Your task to perform on an android device: turn pop-ups on in chrome Image 0: 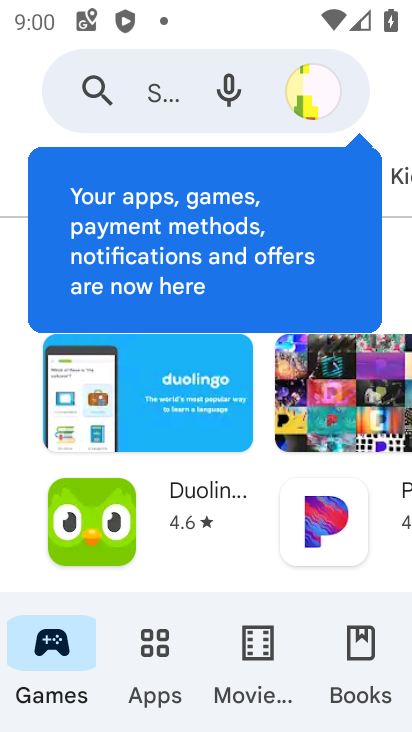
Step 0: press home button
Your task to perform on an android device: turn pop-ups on in chrome Image 1: 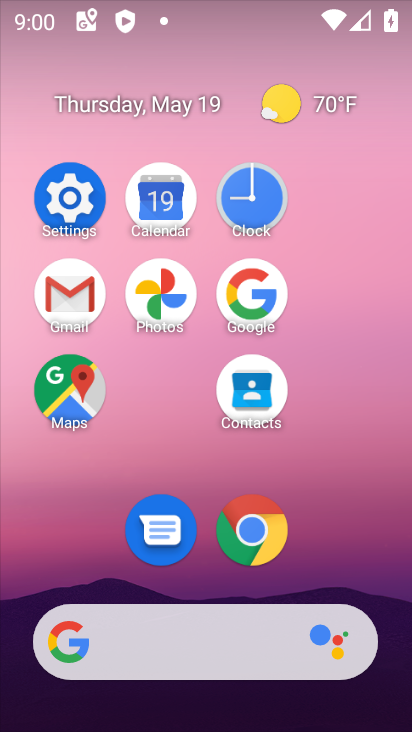
Step 1: click (271, 534)
Your task to perform on an android device: turn pop-ups on in chrome Image 2: 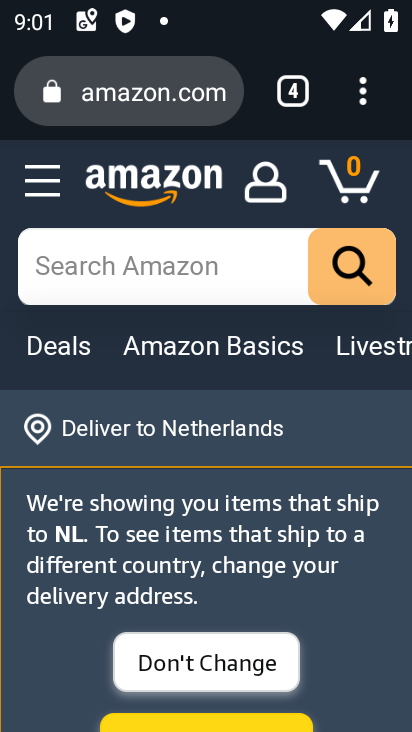
Step 2: click (374, 85)
Your task to perform on an android device: turn pop-ups on in chrome Image 3: 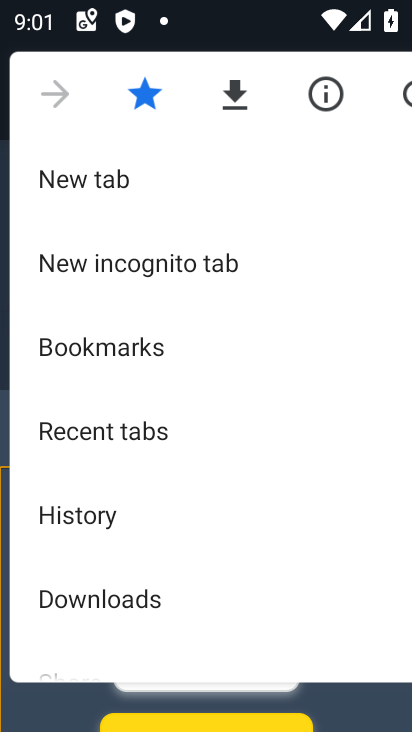
Step 3: drag from (268, 500) to (279, 149)
Your task to perform on an android device: turn pop-ups on in chrome Image 4: 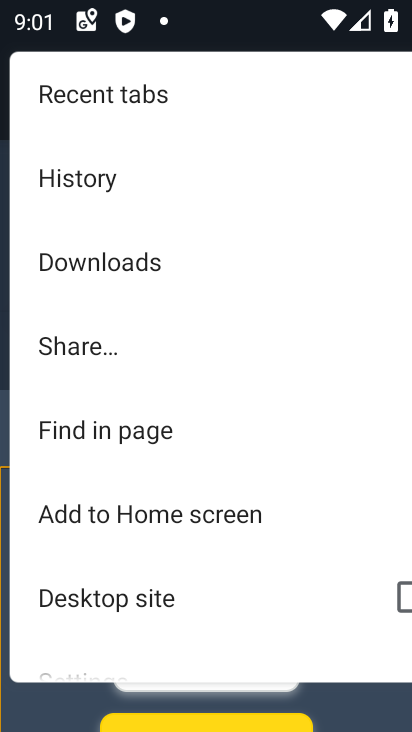
Step 4: drag from (222, 503) to (234, 198)
Your task to perform on an android device: turn pop-ups on in chrome Image 5: 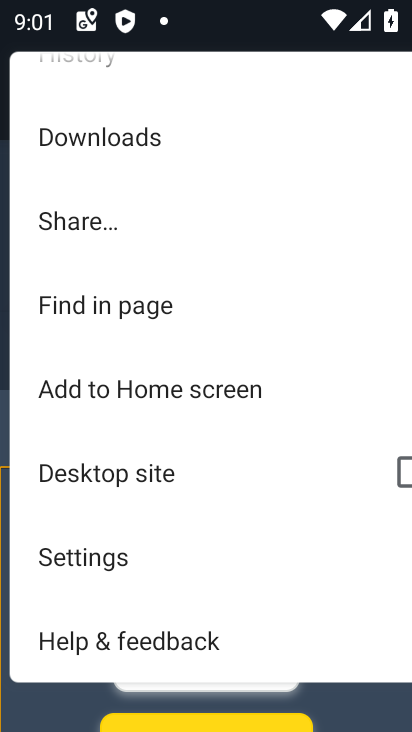
Step 5: click (152, 551)
Your task to perform on an android device: turn pop-ups on in chrome Image 6: 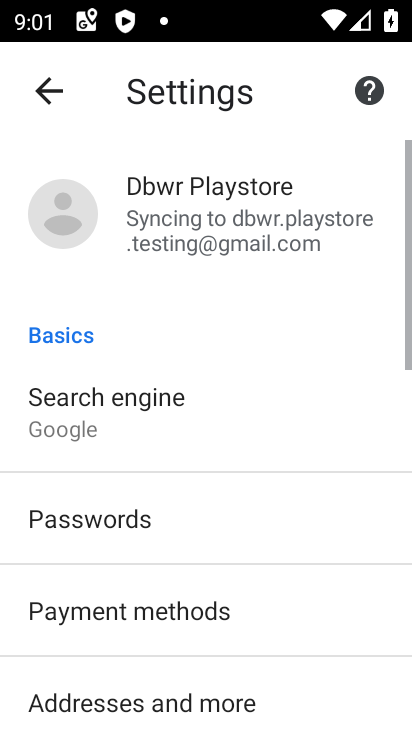
Step 6: drag from (215, 516) to (285, 196)
Your task to perform on an android device: turn pop-ups on in chrome Image 7: 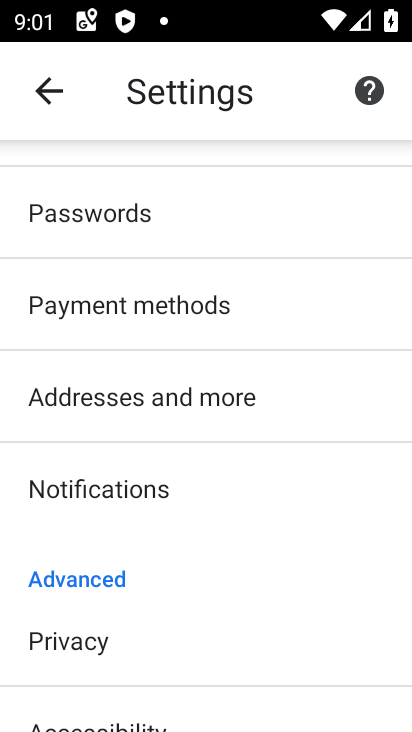
Step 7: drag from (275, 576) to (275, 247)
Your task to perform on an android device: turn pop-ups on in chrome Image 8: 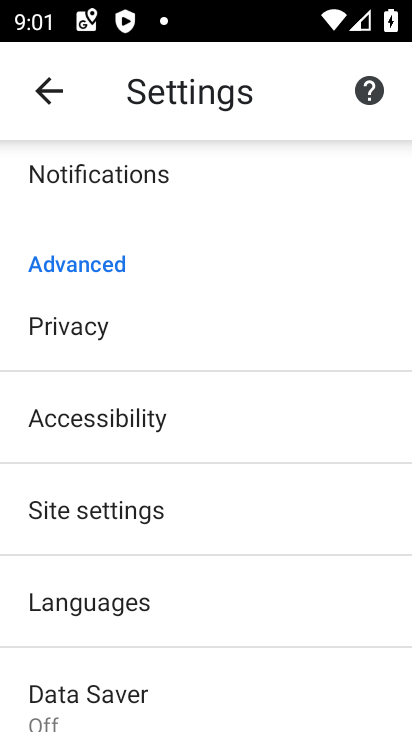
Step 8: drag from (279, 613) to (277, 340)
Your task to perform on an android device: turn pop-ups on in chrome Image 9: 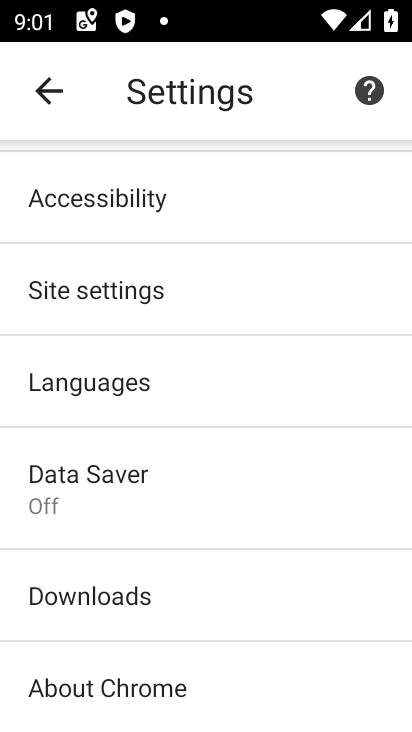
Step 9: click (307, 302)
Your task to perform on an android device: turn pop-ups on in chrome Image 10: 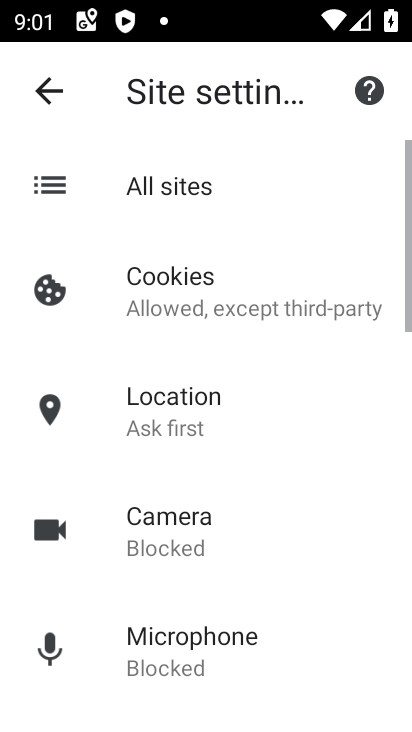
Step 10: drag from (313, 605) to (340, 263)
Your task to perform on an android device: turn pop-ups on in chrome Image 11: 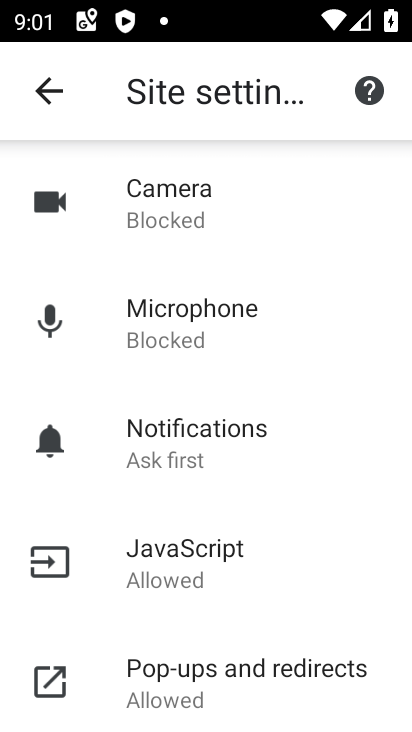
Step 11: drag from (304, 560) to (308, 167)
Your task to perform on an android device: turn pop-ups on in chrome Image 12: 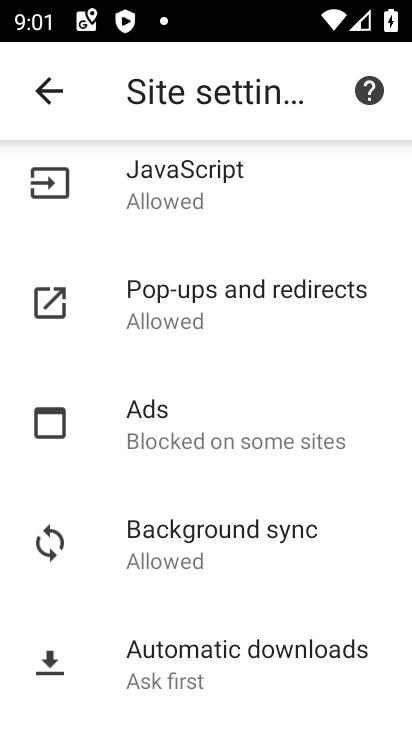
Step 12: click (256, 284)
Your task to perform on an android device: turn pop-ups on in chrome Image 13: 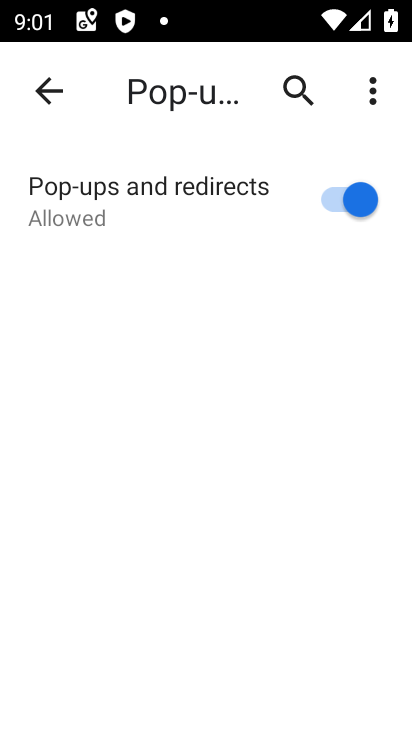
Step 13: task complete